Your task to perform on an android device: turn on location history Image 0: 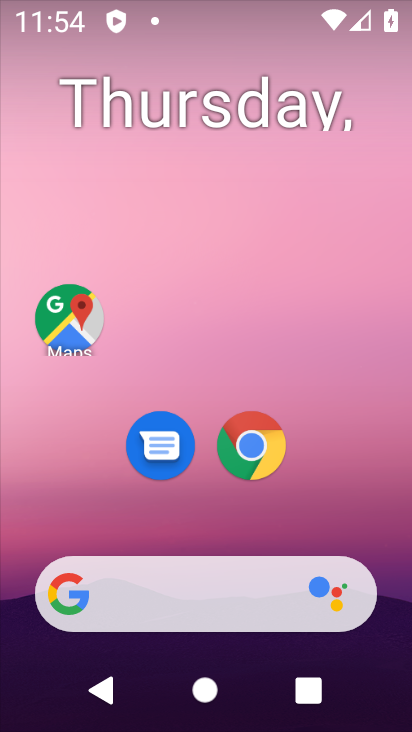
Step 0: drag from (149, 550) to (234, 115)
Your task to perform on an android device: turn on location history Image 1: 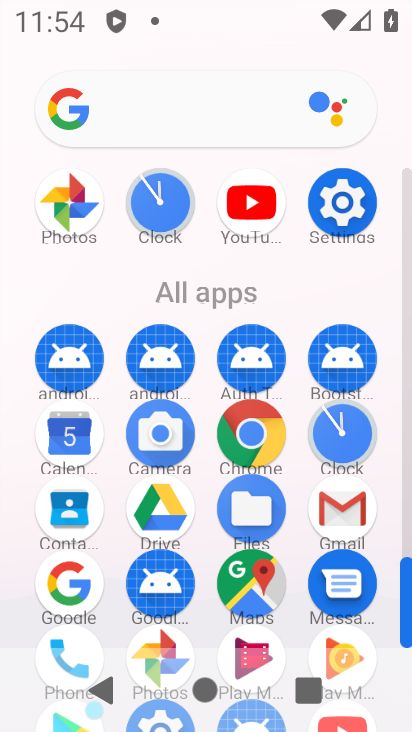
Step 1: drag from (179, 690) to (273, 296)
Your task to perform on an android device: turn on location history Image 2: 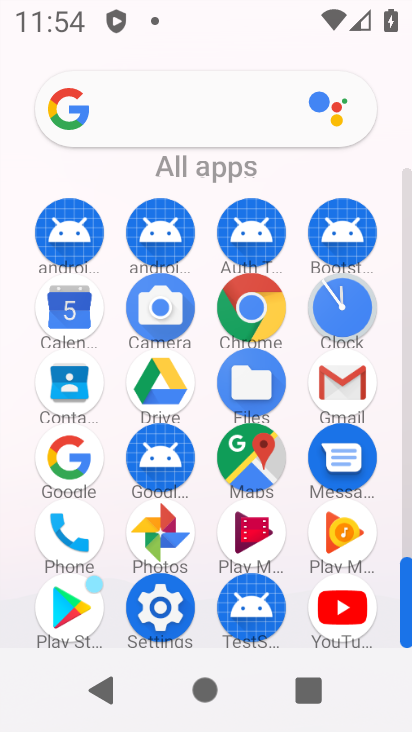
Step 2: click (168, 617)
Your task to perform on an android device: turn on location history Image 3: 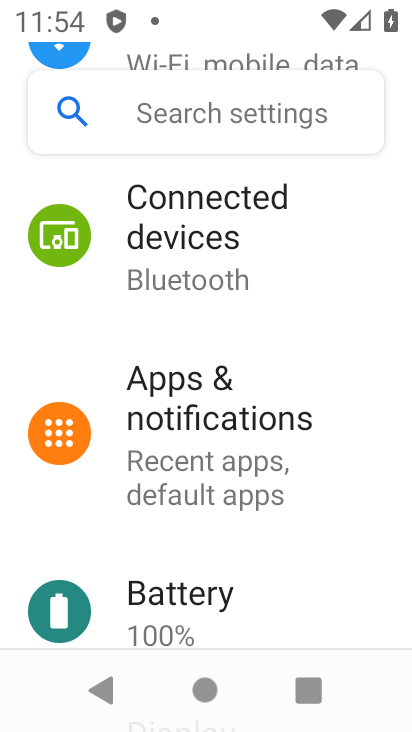
Step 3: drag from (167, 592) to (261, 188)
Your task to perform on an android device: turn on location history Image 4: 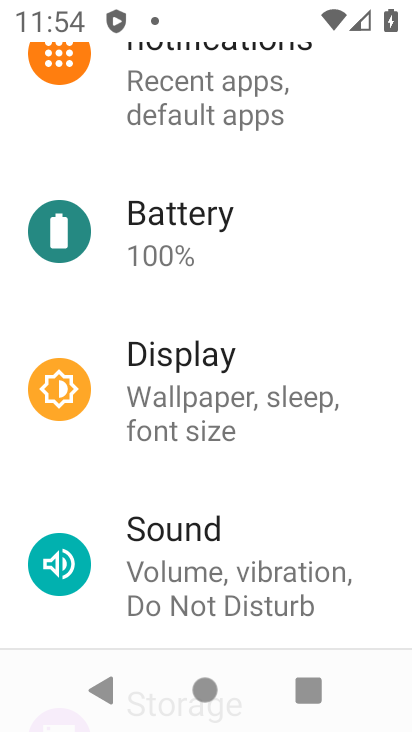
Step 4: drag from (212, 575) to (289, 139)
Your task to perform on an android device: turn on location history Image 5: 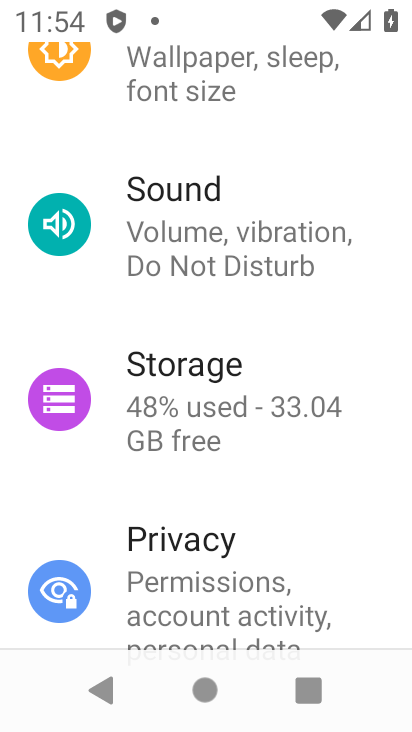
Step 5: drag from (191, 597) to (290, 127)
Your task to perform on an android device: turn on location history Image 6: 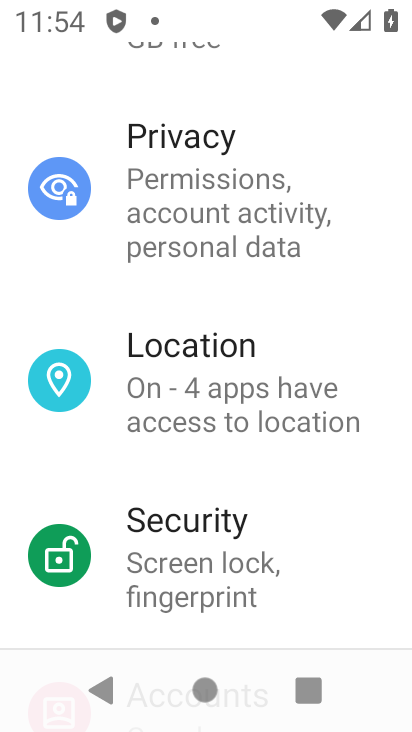
Step 6: click (230, 344)
Your task to perform on an android device: turn on location history Image 7: 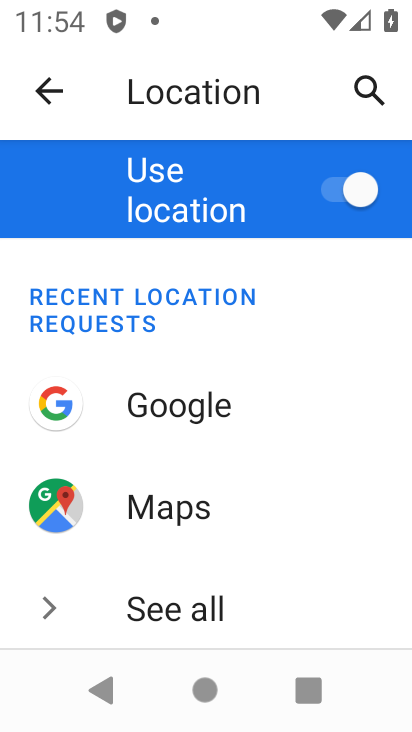
Step 7: drag from (175, 623) to (288, 144)
Your task to perform on an android device: turn on location history Image 8: 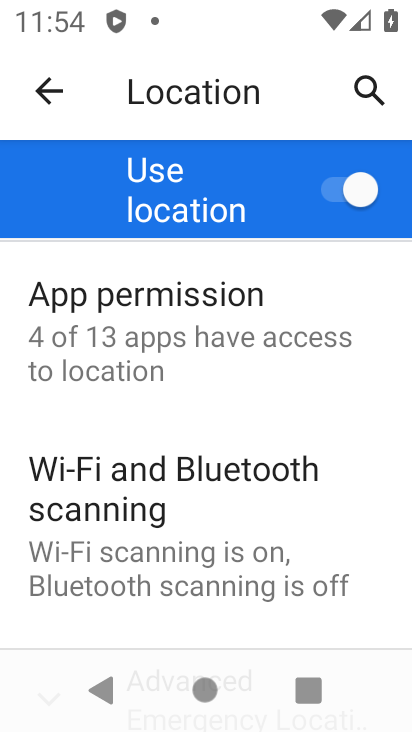
Step 8: drag from (154, 548) to (242, 204)
Your task to perform on an android device: turn on location history Image 9: 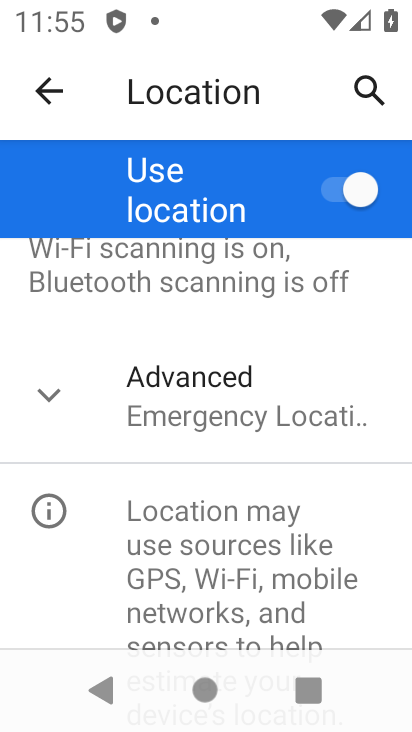
Step 9: drag from (181, 607) to (233, 372)
Your task to perform on an android device: turn on location history Image 10: 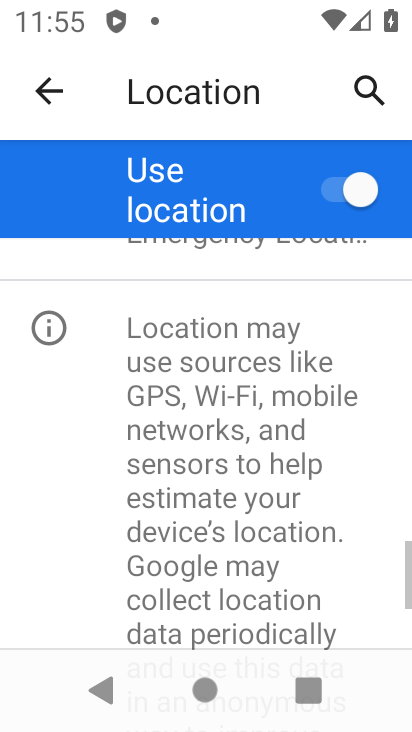
Step 10: drag from (236, 322) to (231, 527)
Your task to perform on an android device: turn on location history Image 11: 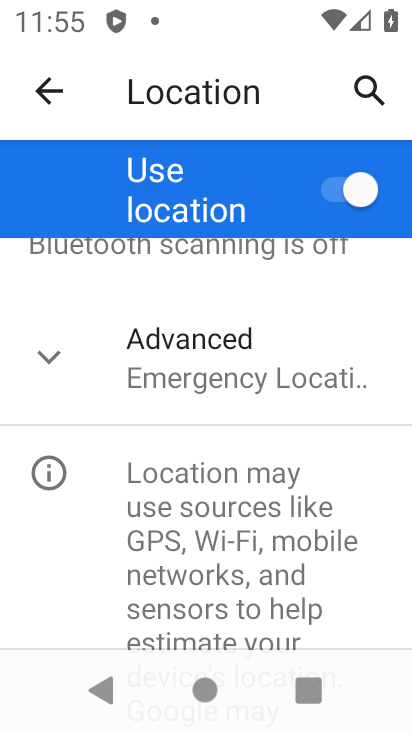
Step 11: click (225, 371)
Your task to perform on an android device: turn on location history Image 12: 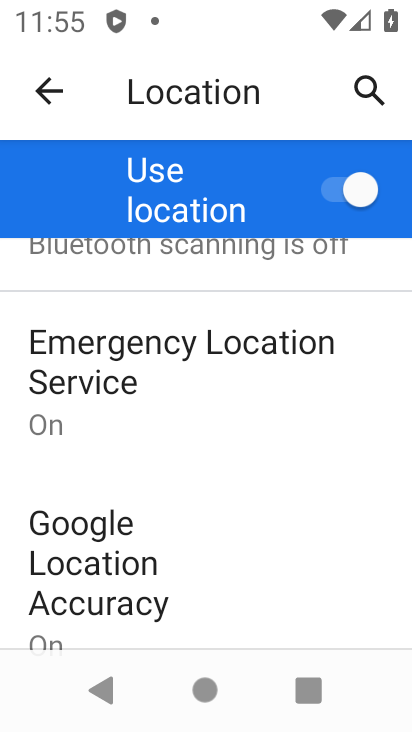
Step 12: drag from (201, 553) to (264, 278)
Your task to perform on an android device: turn on location history Image 13: 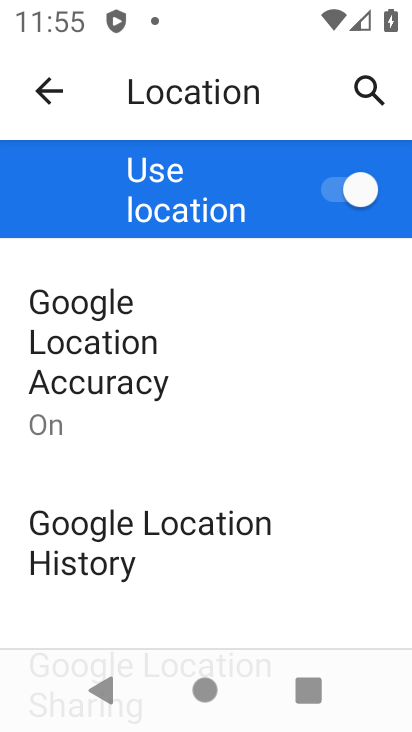
Step 13: click (229, 563)
Your task to perform on an android device: turn on location history Image 14: 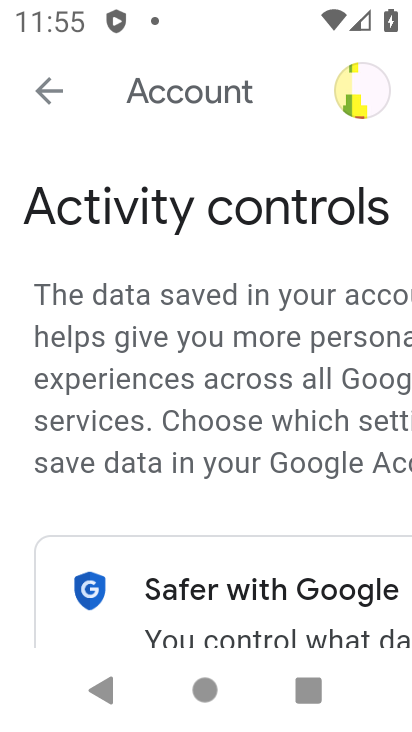
Step 14: drag from (212, 621) to (326, 151)
Your task to perform on an android device: turn on location history Image 15: 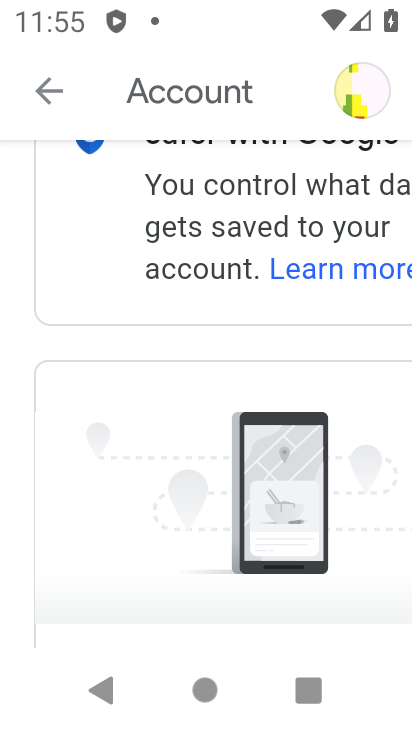
Step 15: drag from (179, 569) to (296, 145)
Your task to perform on an android device: turn on location history Image 16: 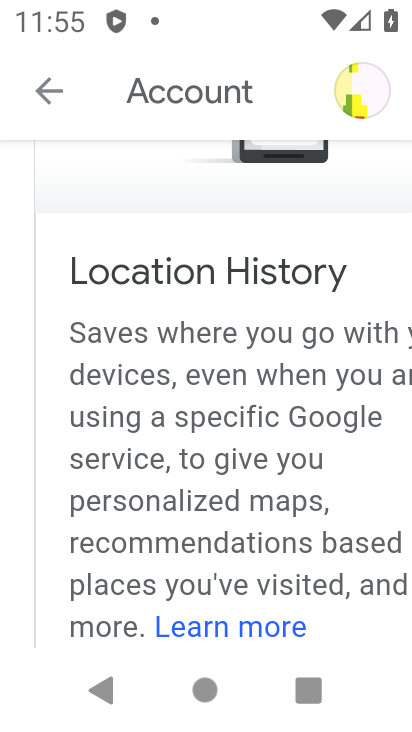
Step 16: drag from (177, 576) to (274, 213)
Your task to perform on an android device: turn on location history Image 17: 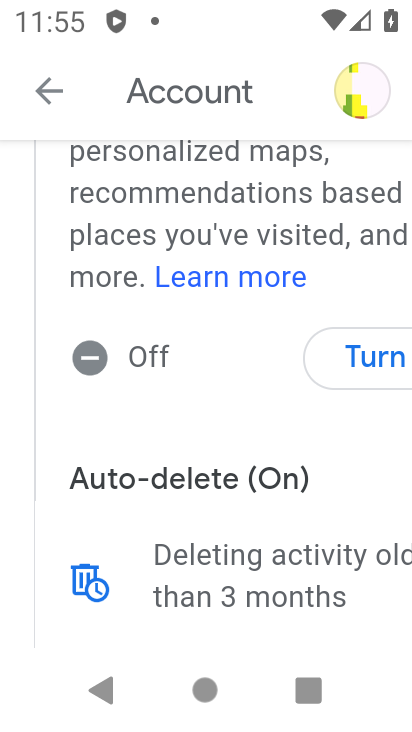
Step 17: click (360, 356)
Your task to perform on an android device: turn on location history Image 18: 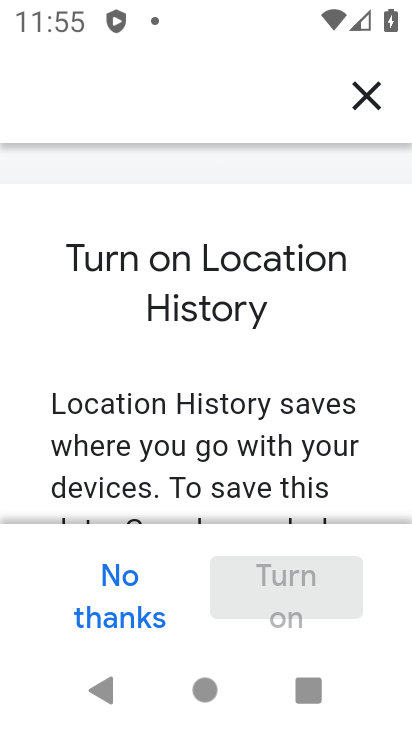
Step 18: drag from (240, 492) to (337, 62)
Your task to perform on an android device: turn on location history Image 19: 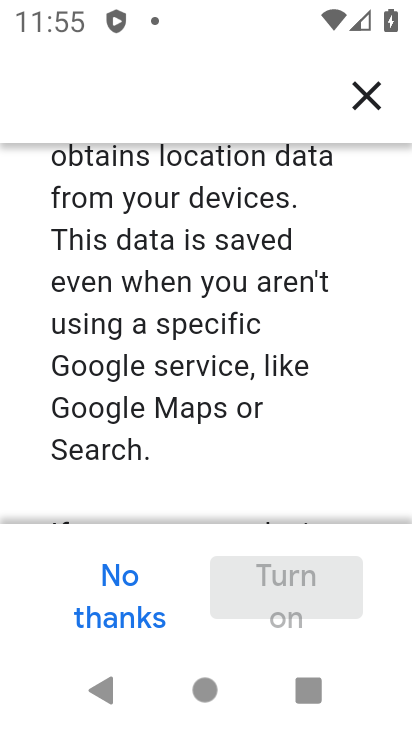
Step 19: drag from (255, 442) to (344, 101)
Your task to perform on an android device: turn on location history Image 20: 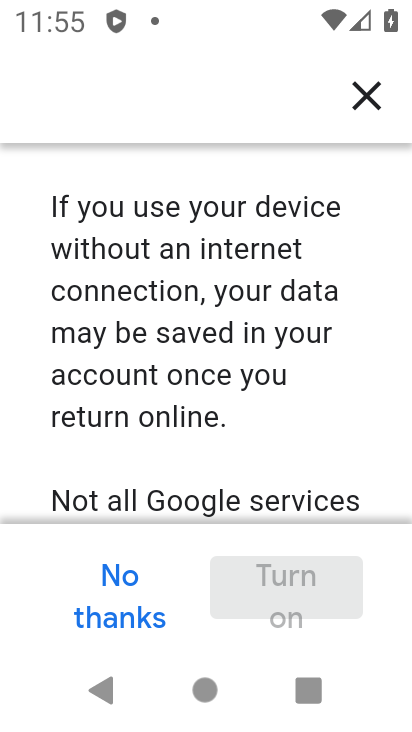
Step 20: drag from (286, 458) to (348, 98)
Your task to perform on an android device: turn on location history Image 21: 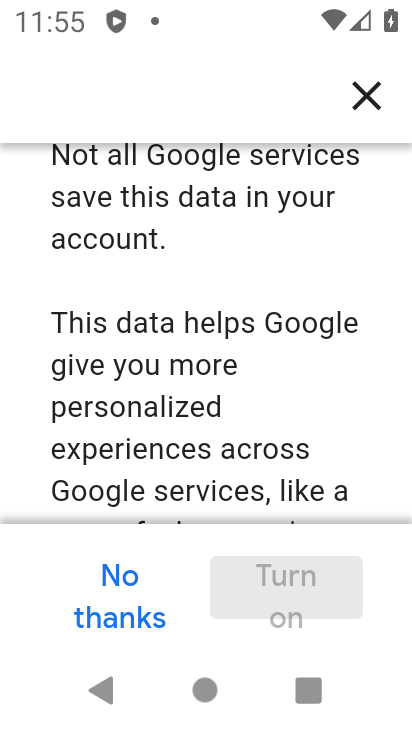
Step 21: drag from (235, 473) to (307, 183)
Your task to perform on an android device: turn on location history Image 22: 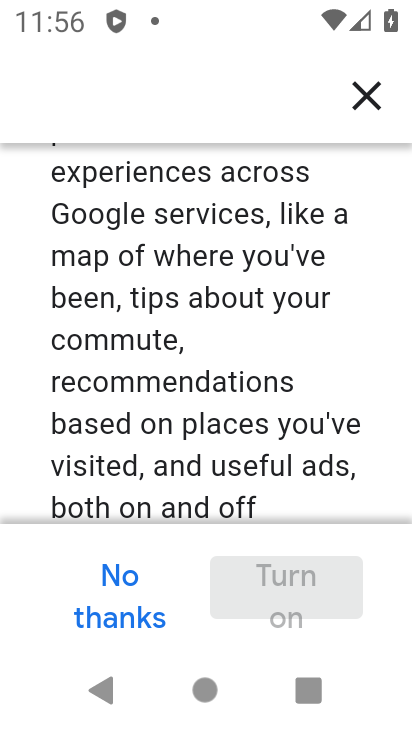
Step 22: drag from (242, 532) to (319, 190)
Your task to perform on an android device: turn on location history Image 23: 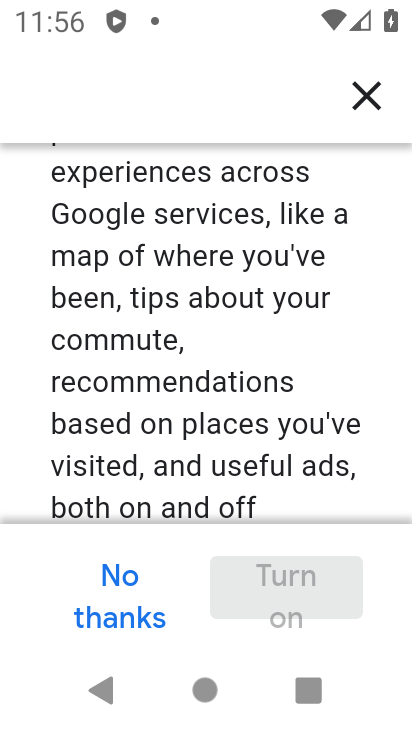
Step 23: drag from (274, 491) to (322, 249)
Your task to perform on an android device: turn on location history Image 24: 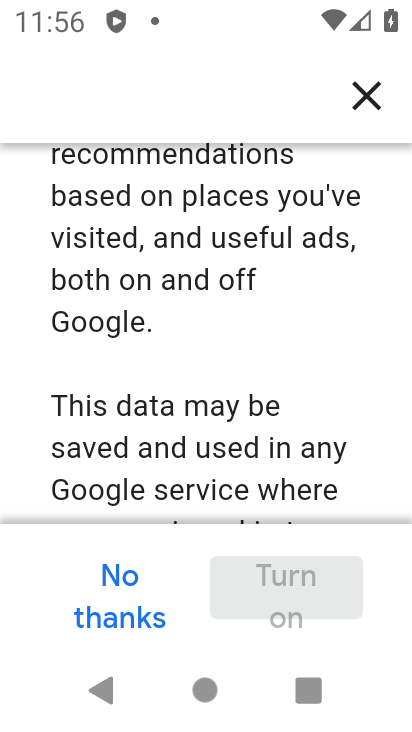
Step 24: drag from (186, 517) to (296, 70)
Your task to perform on an android device: turn on location history Image 25: 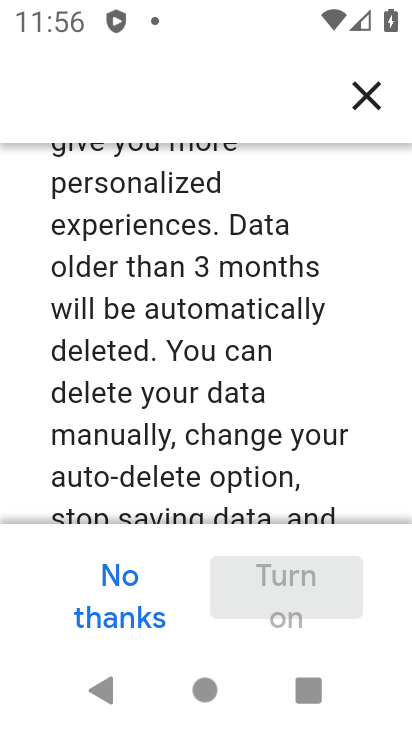
Step 25: drag from (146, 507) to (274, 143)
Your task to perform on an android device: turn on location history Image 26: 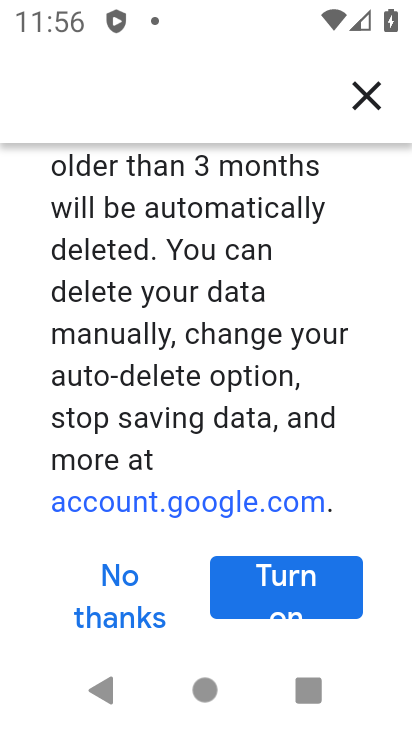
Step 26: click (299, 608)
Your task to perform on an android device: turn on location history Image 27: 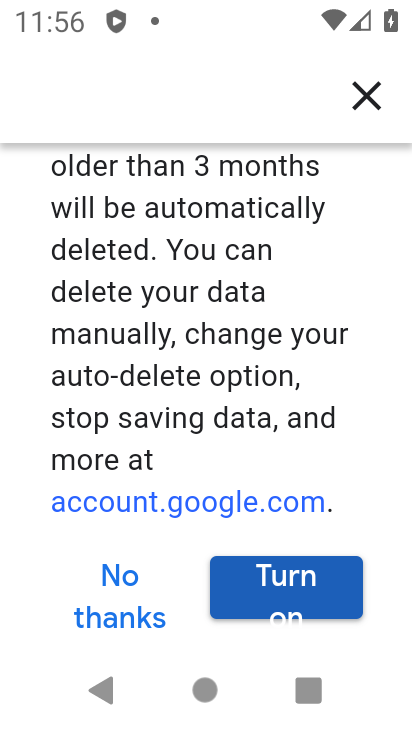
Step 27: click (296, 608)
Your task to perform on an android device: turn on location history Image 28: 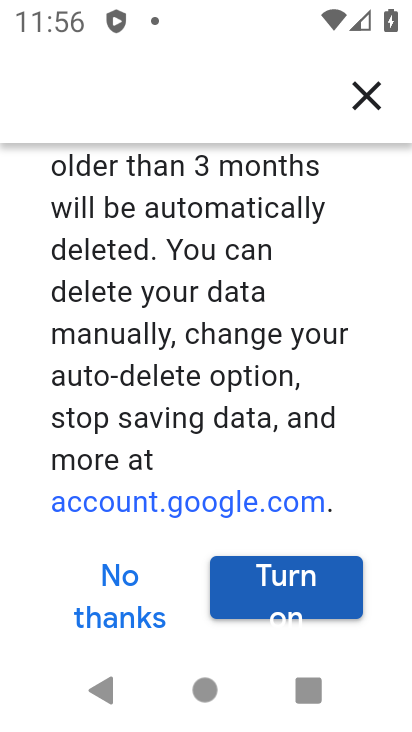
Step 28: click (285, 598)
Your task to perform on an android device: turn on location history Image 29: 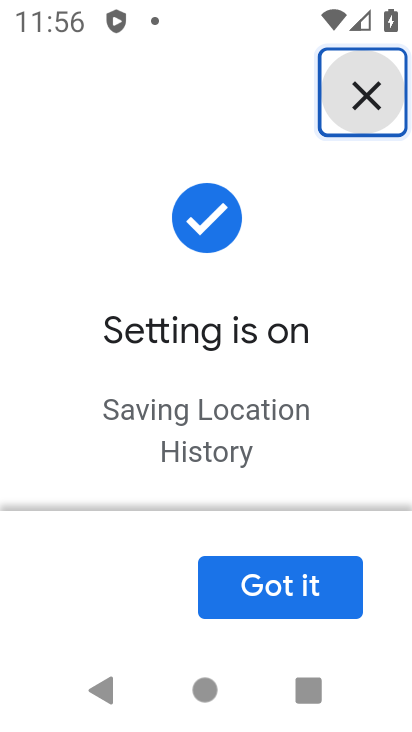
Step 29: click (272, 596)
Your task to perform on an android device: turn on location history Image 30: 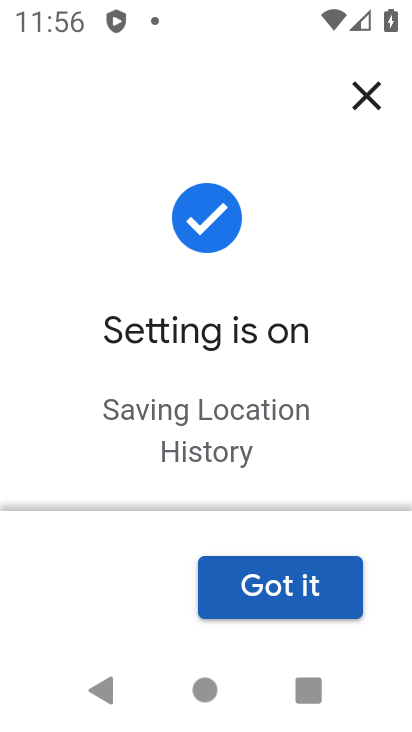
Step 30: click (317, 597)
Your task to perform on an android device: turn on location history Image 31: 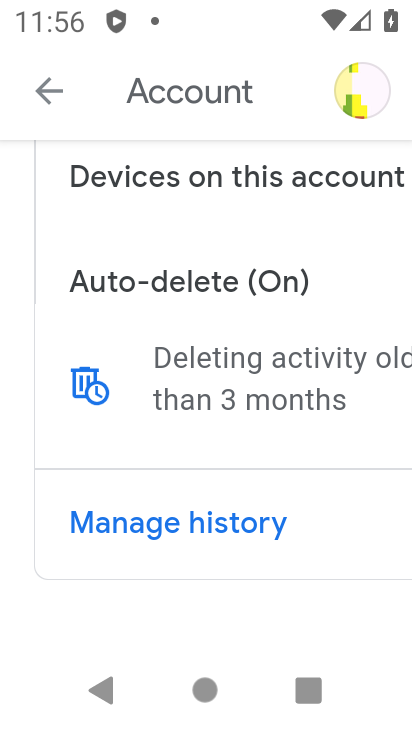
Step 31: task complete